Your task to perform on an android device: uninstall "Google Keep" Image 0: 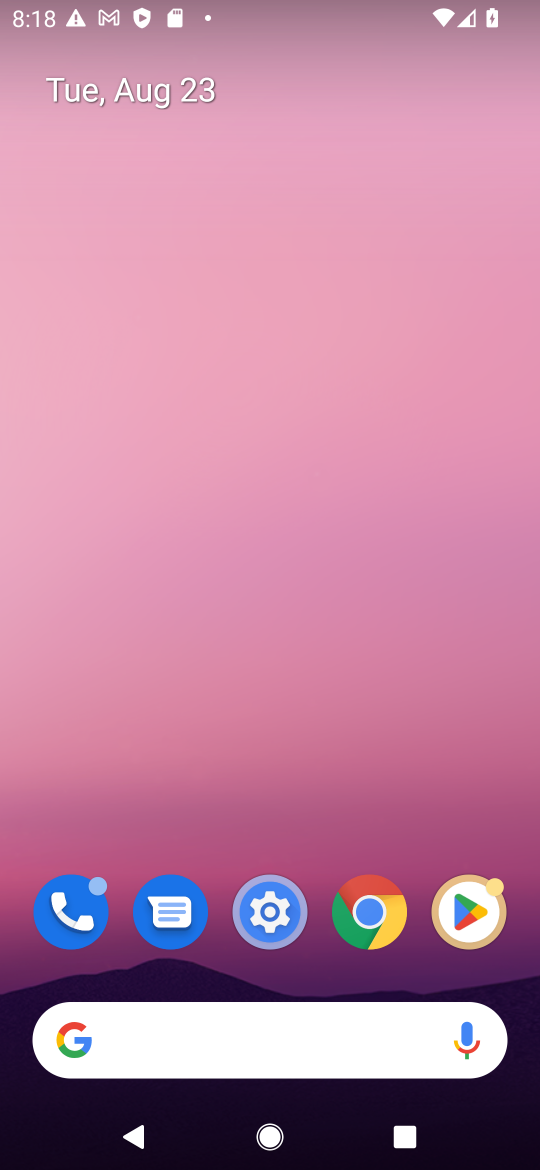
Step 0: drag from (300, 1064) to (378, 162)
Your task to perform on an android device: uninstall "Google Keep" Image 1: 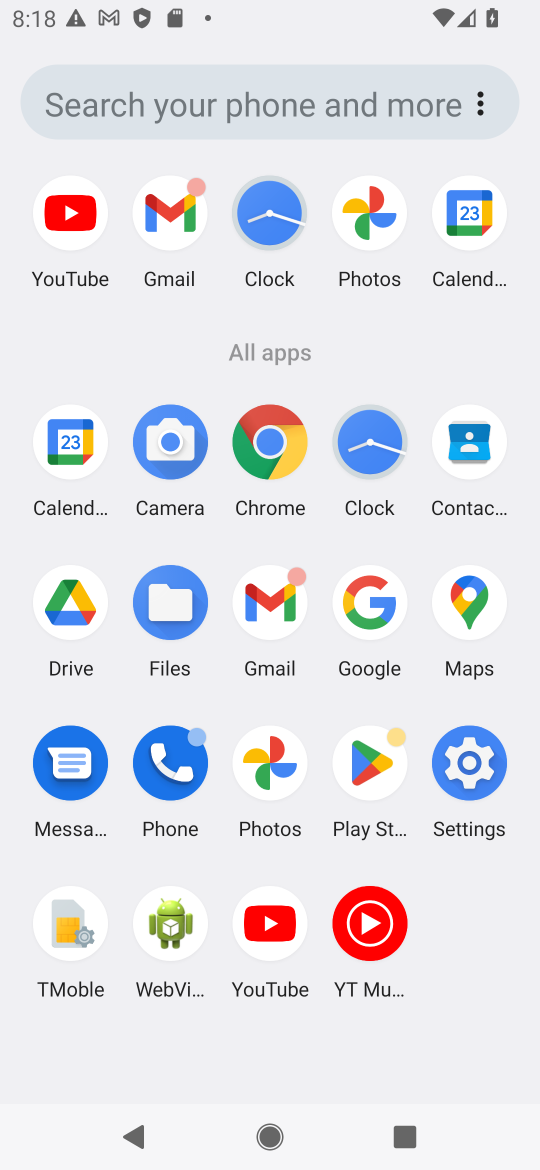
Step 1: click (383, 754)
Your task to perform on an android device: uninstall "Google Keep" Image 2: 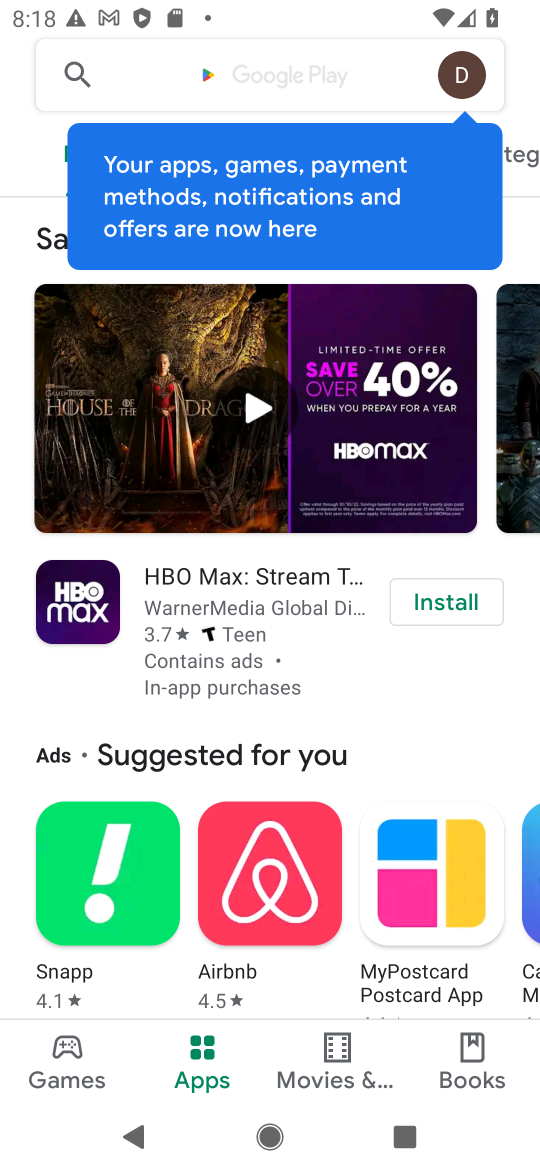
Step 2: click (291, 58)
Your task to perform on an android device: uninstall "Google Keep" Image 3: 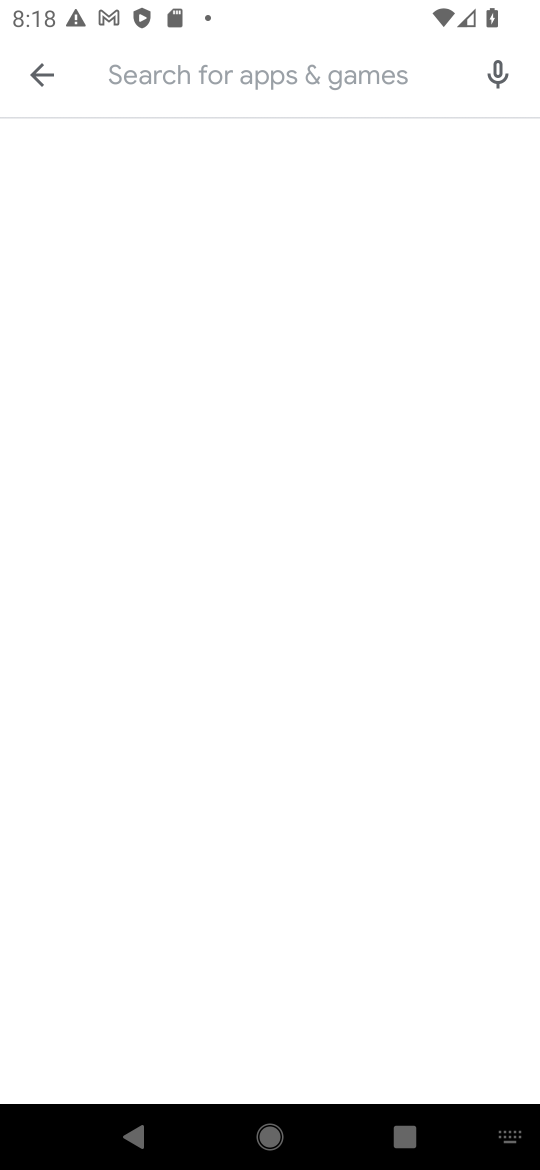
Step 3: type "Google Keep"
Your task to perform on an android device: uninstall "Google Keep" Image 4: 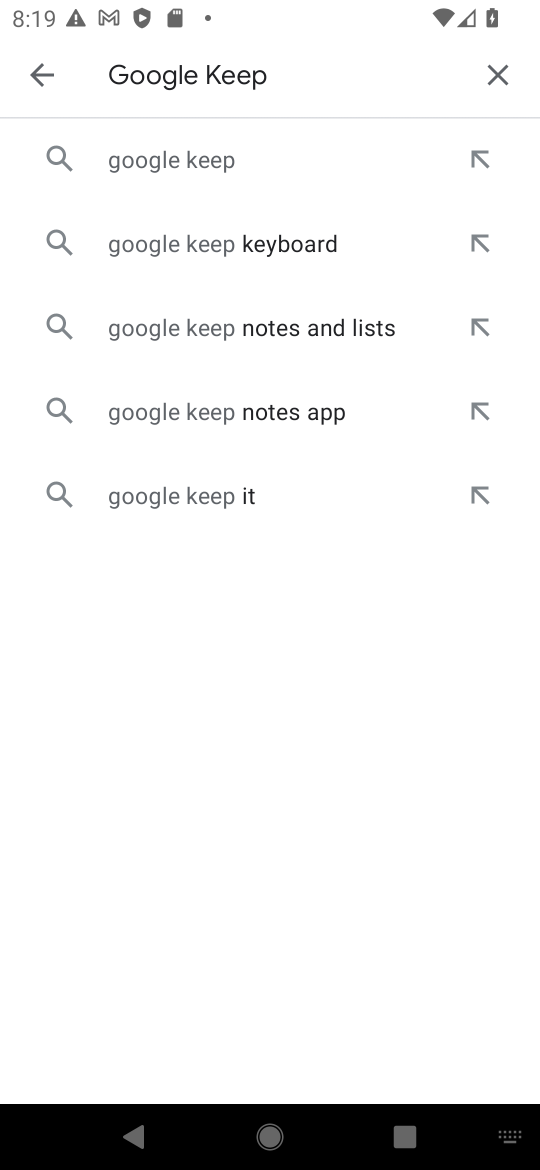
Step 4: click (142, 155)
Your task to perform on an android device: uninstall "Google Keep" Image 5: 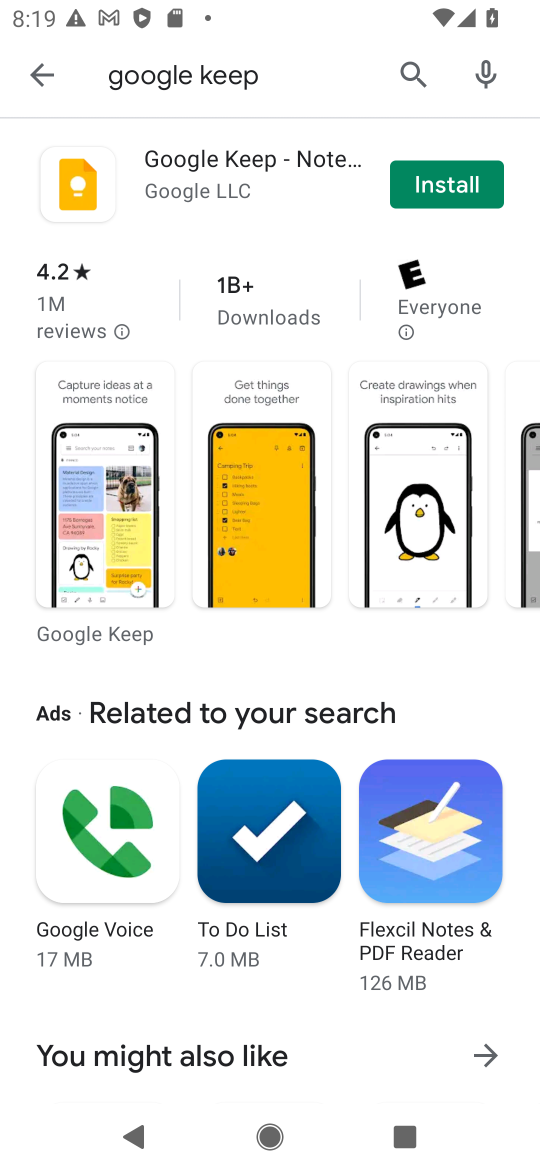
Step 5: task complete